Your task to perform on an android device: turn on location history Image 0: 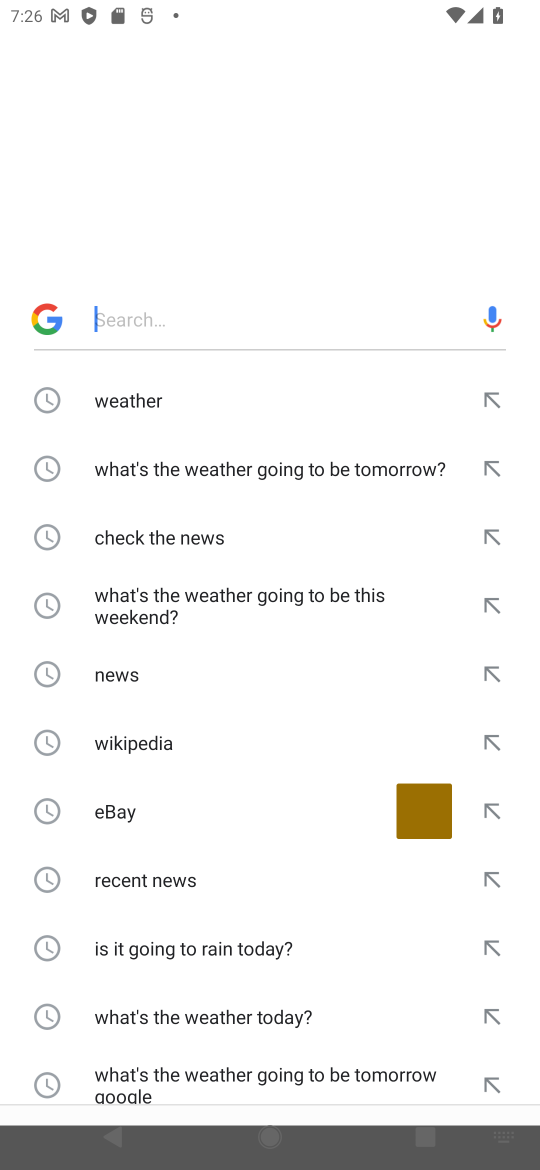
Step 0: press home button
Your task to perform on an android device: turn on location history Image 1: 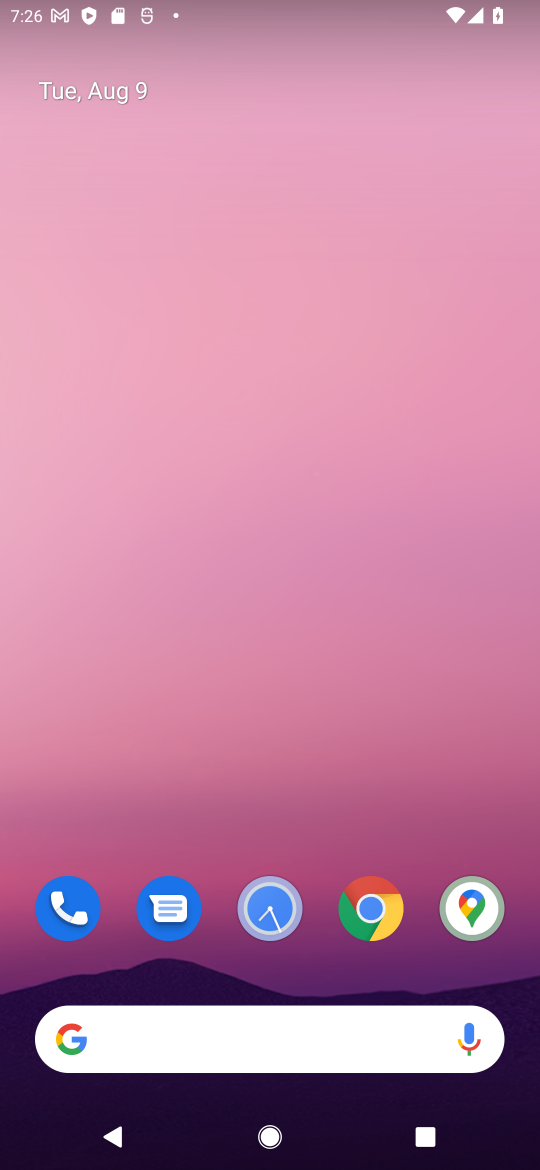
Step 1: drag from (302, 794) to (287, 2)
Your task to perform on an android device: turn on location history Image 2: 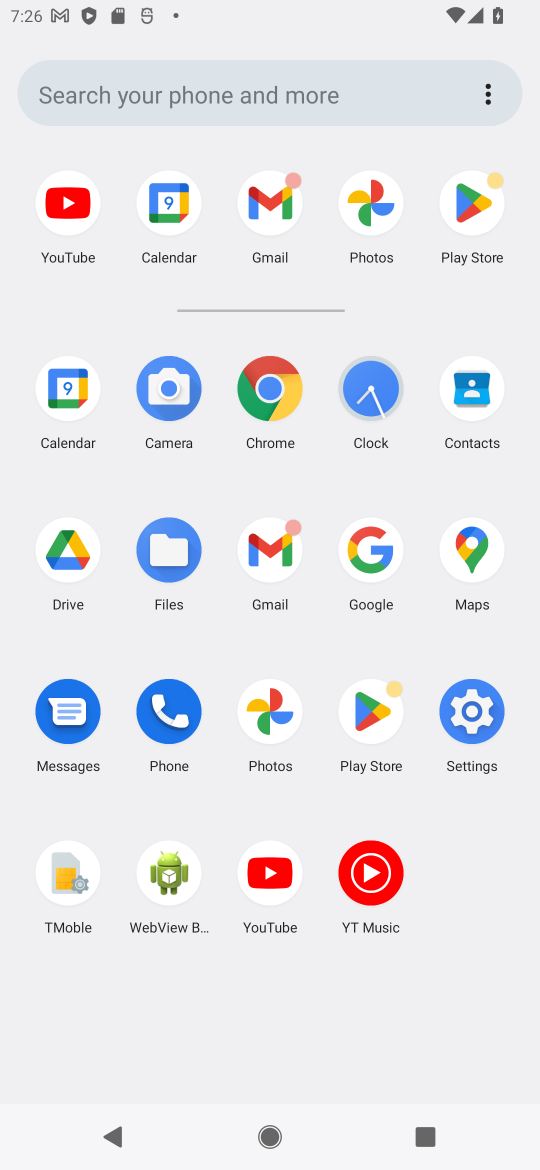
Step 2: click (482, 719)
Your task to perform on an android device: turn on location history Image 3: 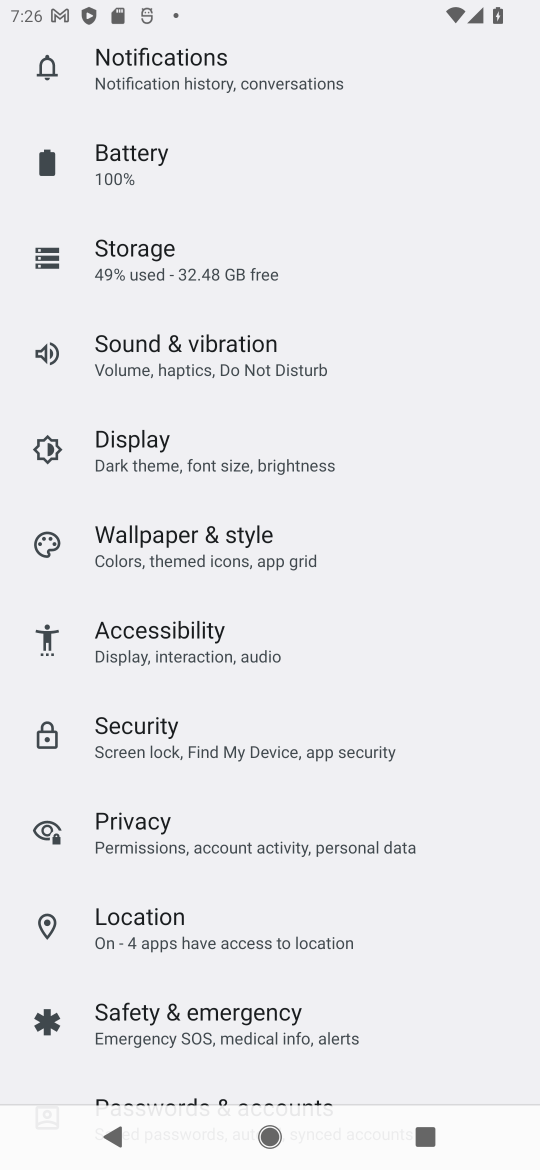
Step 3: click (129, 928)
Your task to perform on an android device: turn on location history Image 4: 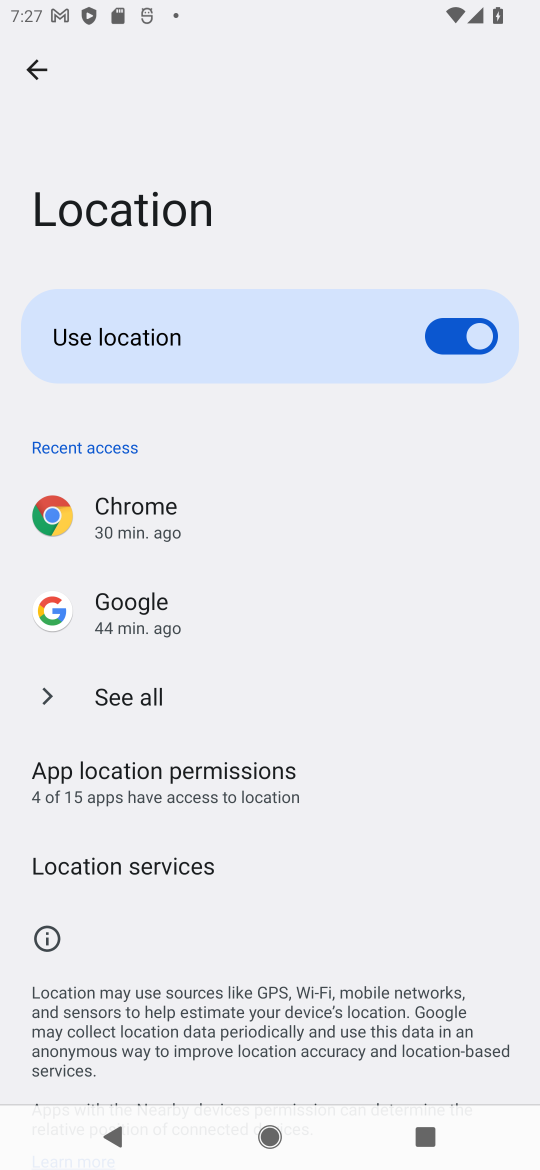
Step 4: click (123, 857)
Your task to perform on an android device: turn on location history Image 5: 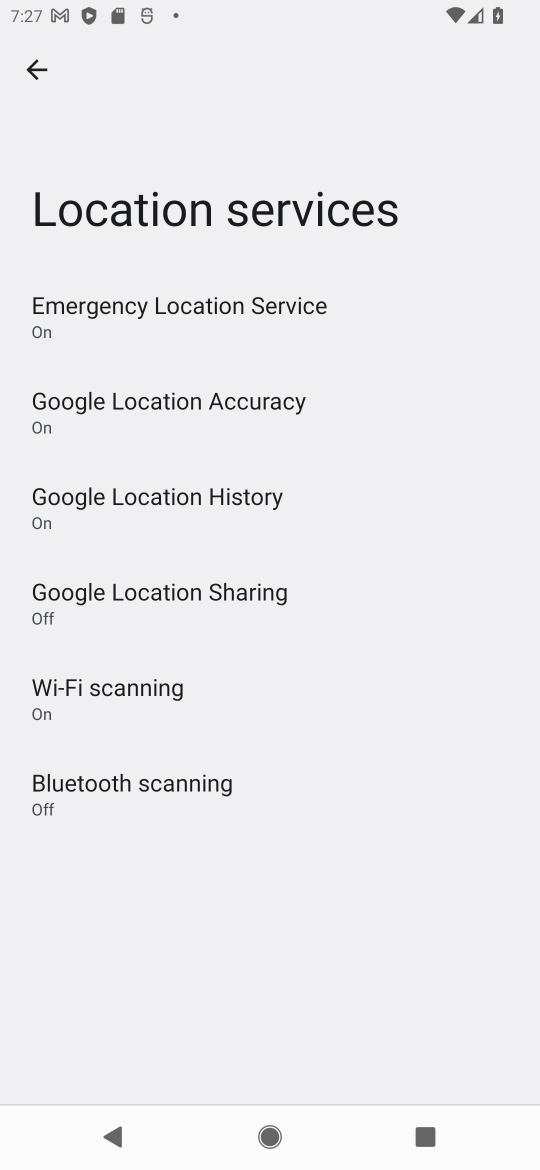
Step 5: click (149, 491)
Your task to perform on an android device: turn on location history Image 6: 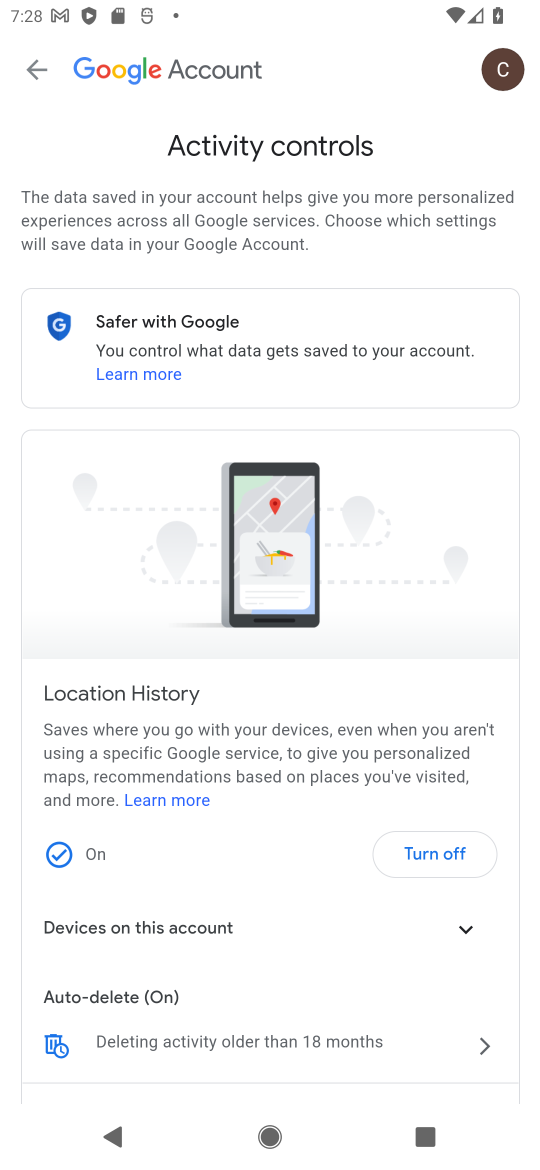
Step 6: task complete